Your task to perform on an android device: Do I have any events tomorrow? Image 0: 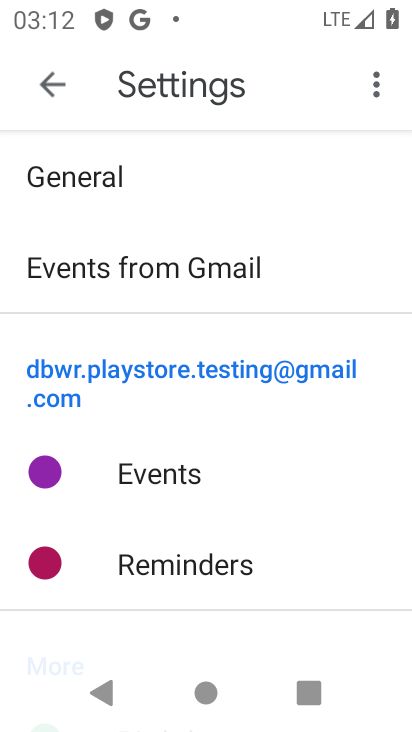
Step 0: press back button
Your task to perform on an android device: Do I have any events tomorrow? Image 1: 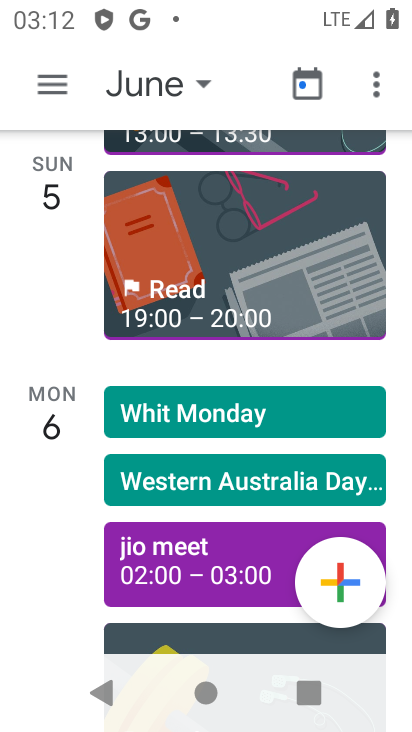
Step 1: task complete